Your task to perform on an android device: see creations saved in the google photos Image 0: 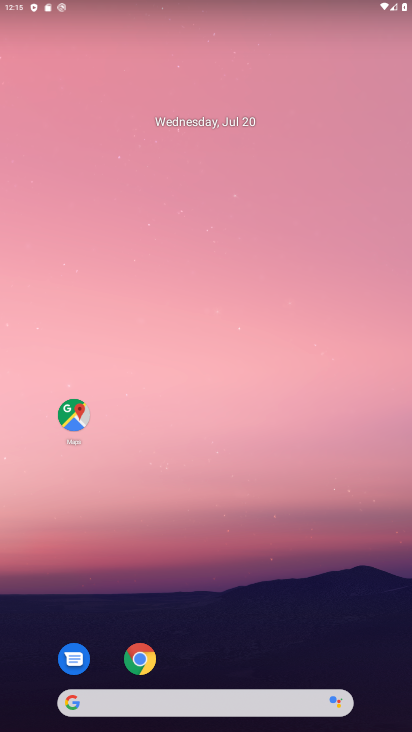
Step 0: drag from (369, 655) to (213, 43)
Your task to perform on an android device: see creations saved in the google photos Image 1: 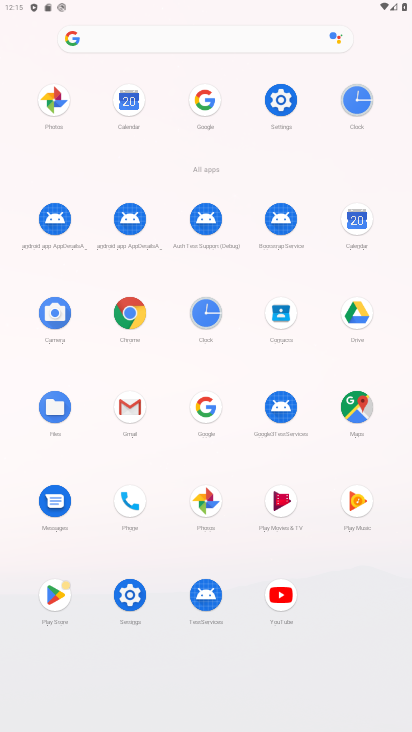
Step 1: click (199, 509)
Your task to perform on an android device: see creations saved in the google photos Image 2: 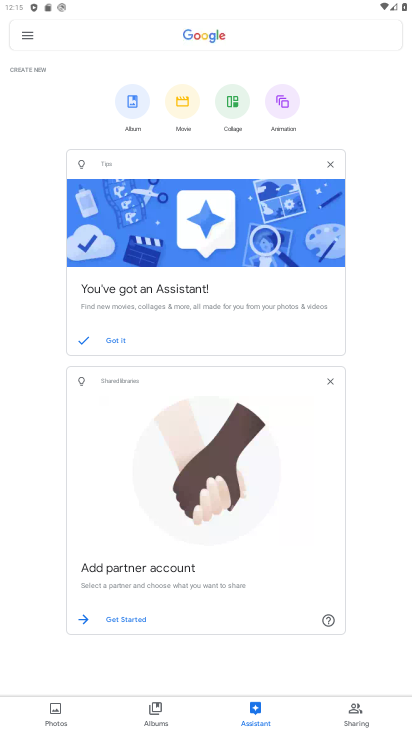
Step 2: click (110, 40)
Your task to perform on an android device: see creations saved in the google photos Image 3: 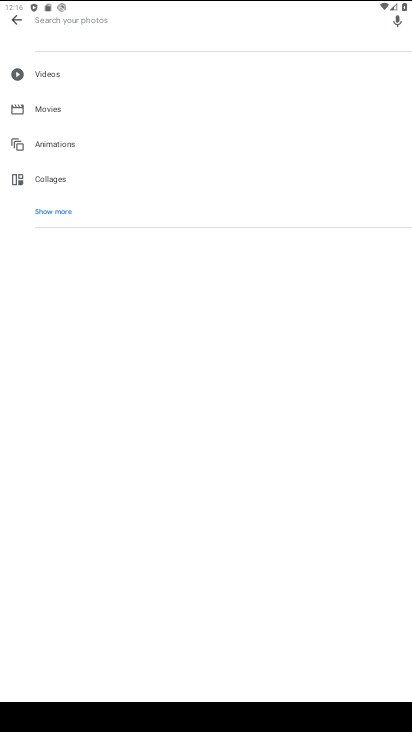
Step 3: click (34, 213)
Your task to perform on an android device: see creations saved in the google photos Image 4: 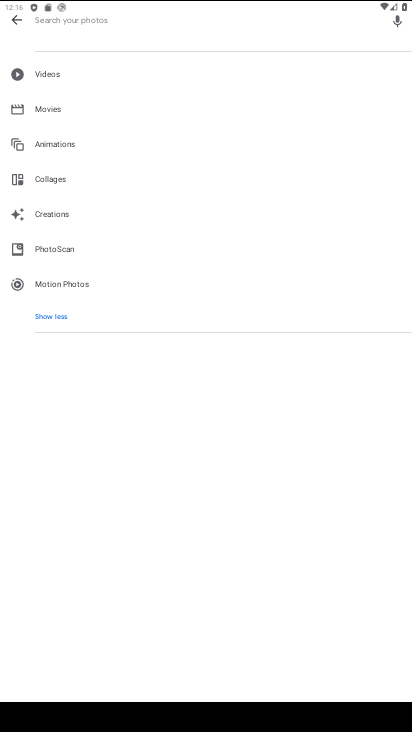
Step 4: click (66, 222)
Your task to perform on an android device: see creations saved in the google photos Image 5: 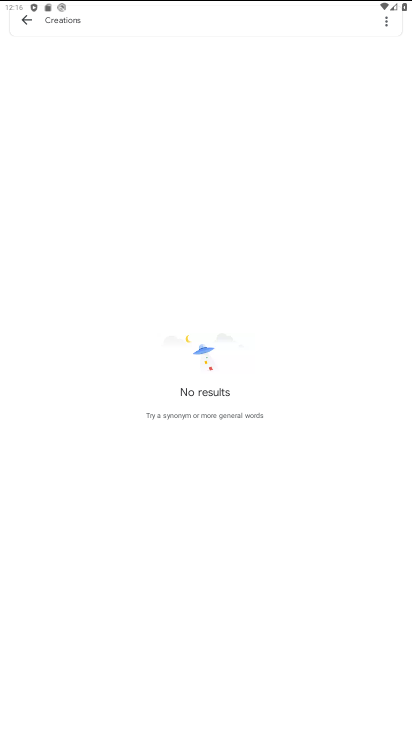
Step 5: task complete